Your task to perform on an android device: find snoozed emails in the gmail app Image 0: 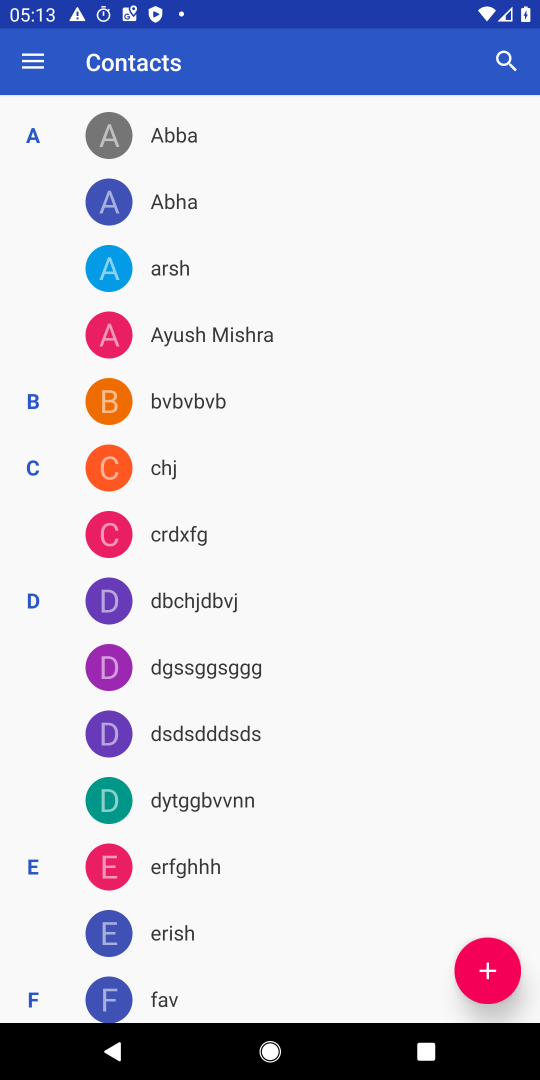
Step 0: press home button
Your task to perform on an android device: find snoozed emails in the gmail app Image 1: 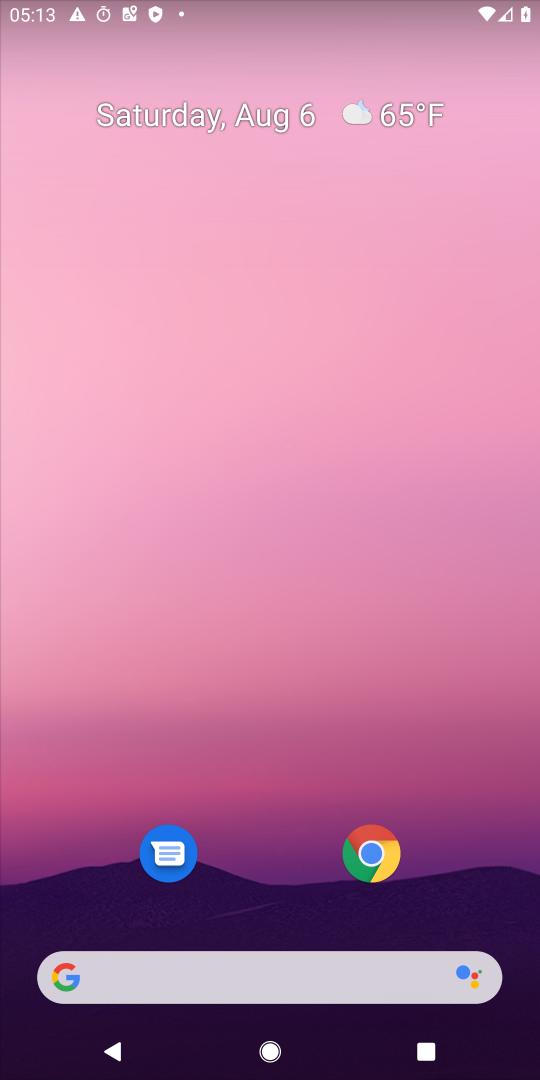
Step 1: drag from (448, 786) to (451, 394)
Your task to perform on an android device: find snoozed emails in the gmail app Image 2: 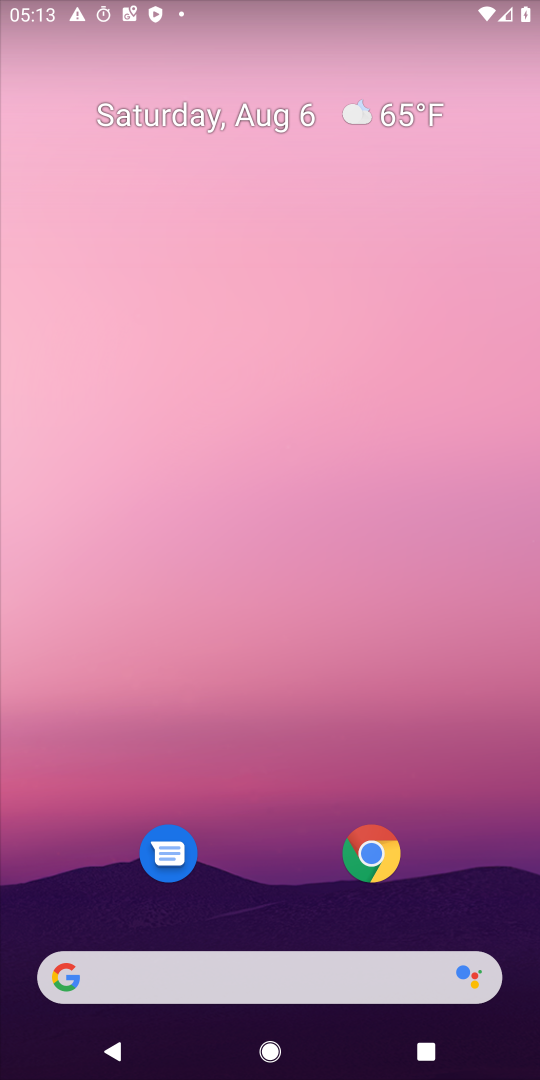
Step 2: drag from (163, 811) to (242, 688)
Your task to perform on an android device: find snoozed emails in the gmail app Image 3: 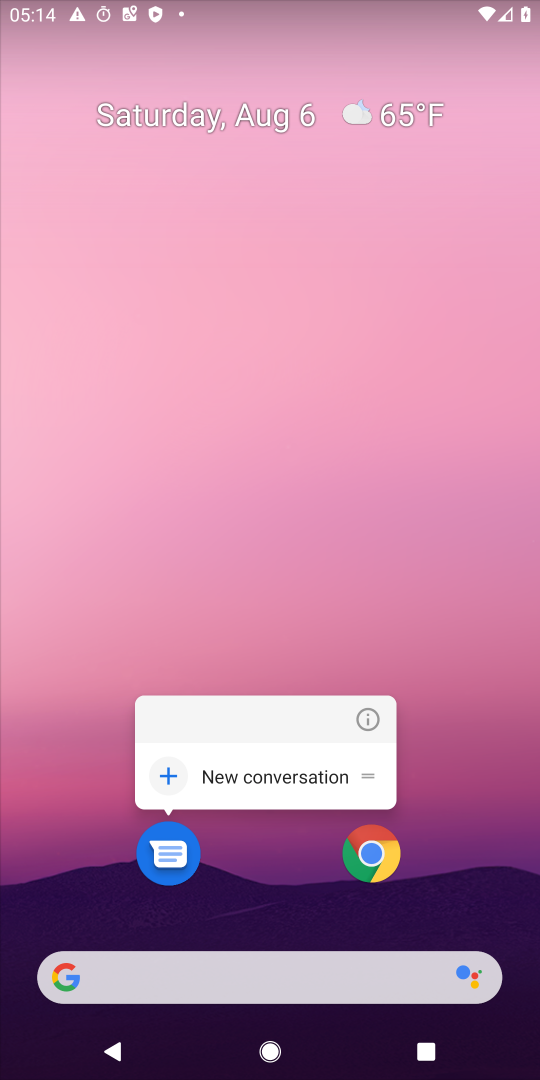
Step 3: drag from (288, 822) to (256, 64)
Your task to perform on an android device: find snoozed emails in the gmail app Image 4: 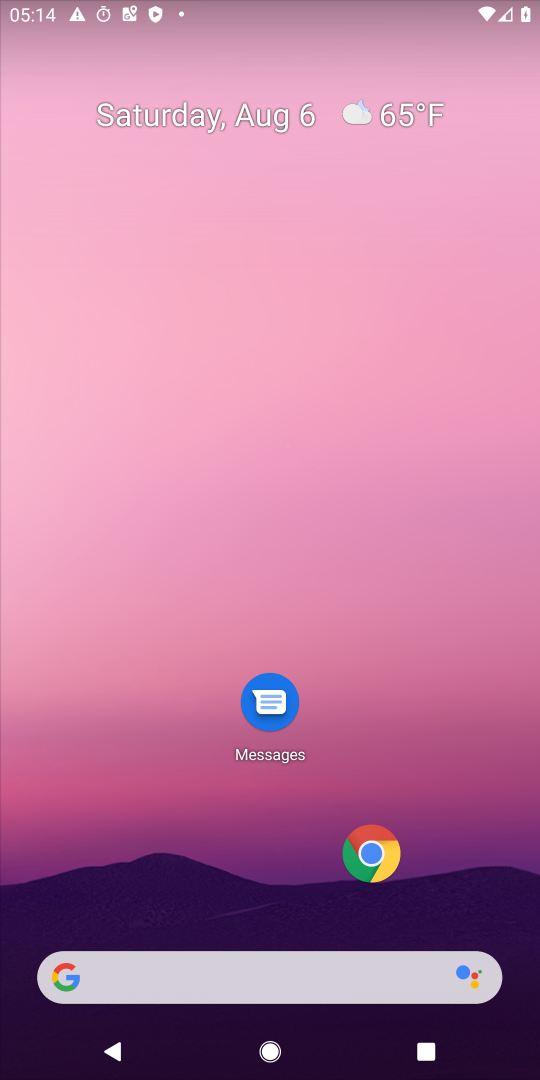
Step 4: drag from (152, 833) to (147, 63)
Your task to perform on an android device: find snoozed emails in the gmail app Image 5: 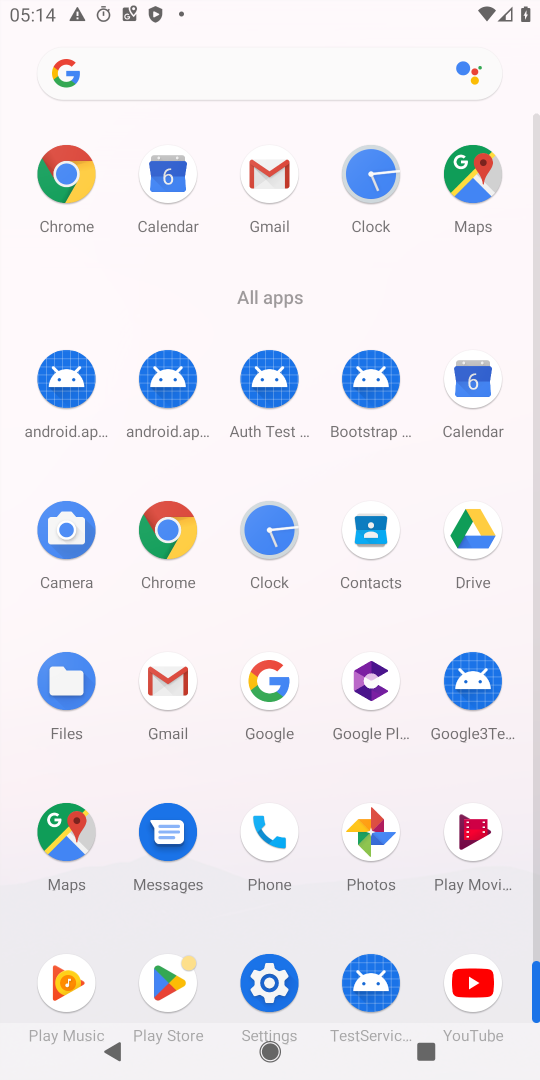
Step 5: click (172, 696)
Your task to perform on an android device: find snoozed emails in the gmail app Image 6: 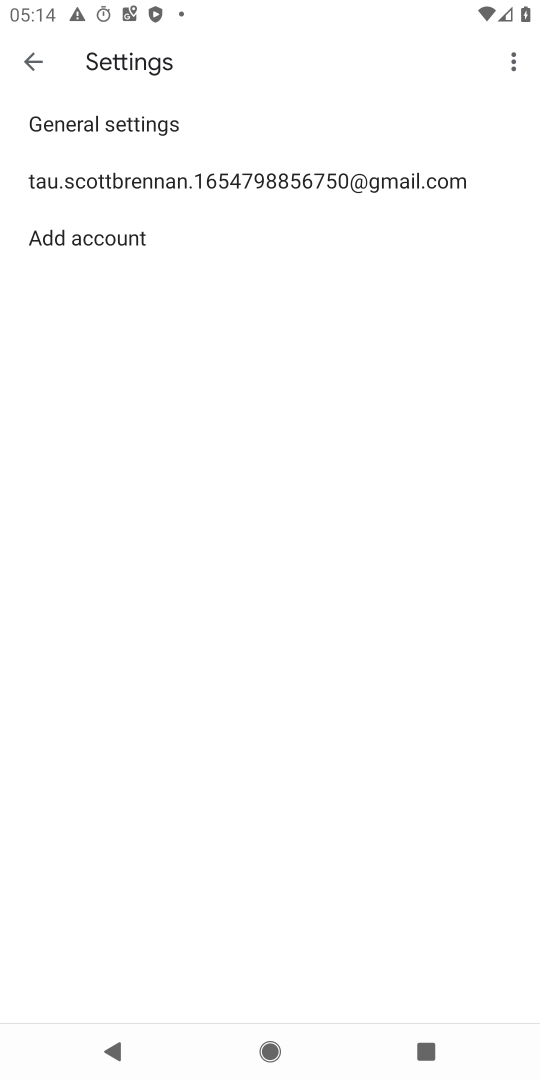
Step 6: click (39, 70)
Your task to perform on an android device: find snoozed emails in the gmail app Image 7: 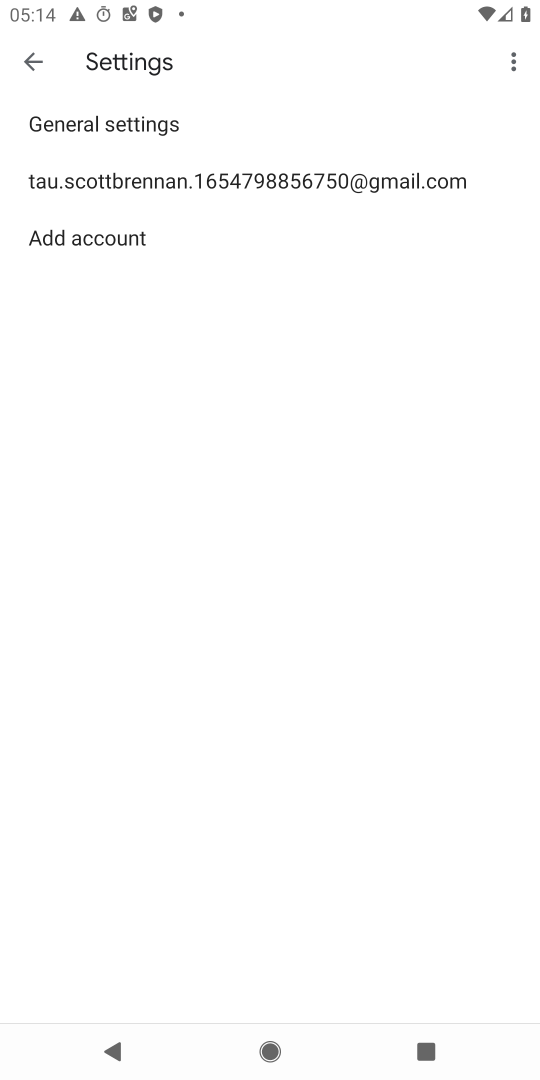
Step 7: click (31, 53)
Your task to perform on an android device: find snoozed emails in the gmail app Image 8: 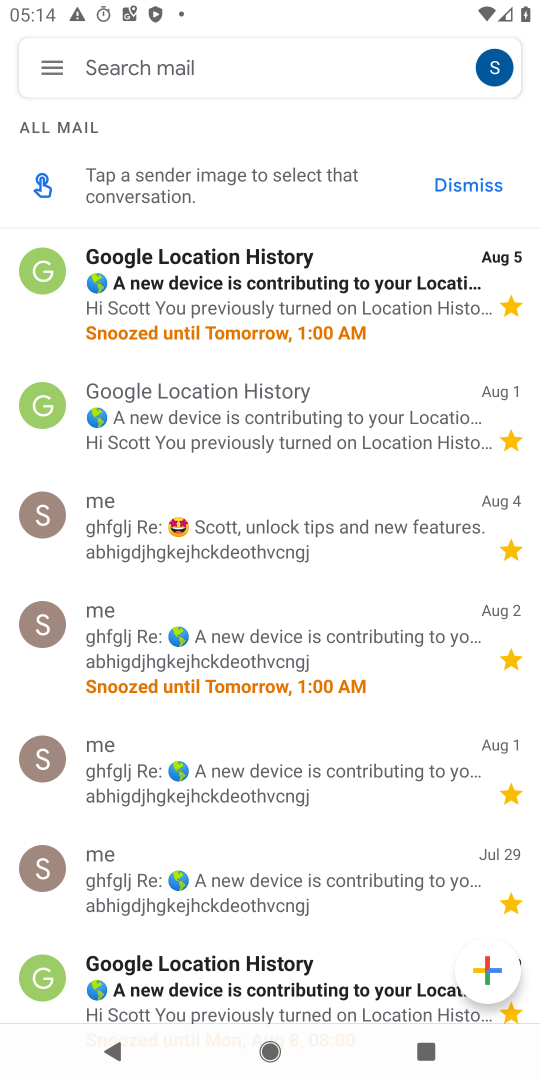
Step 8: click (46, 67)
Your task to perform on an android device: find snoozed emails in the gmail app Image 9: 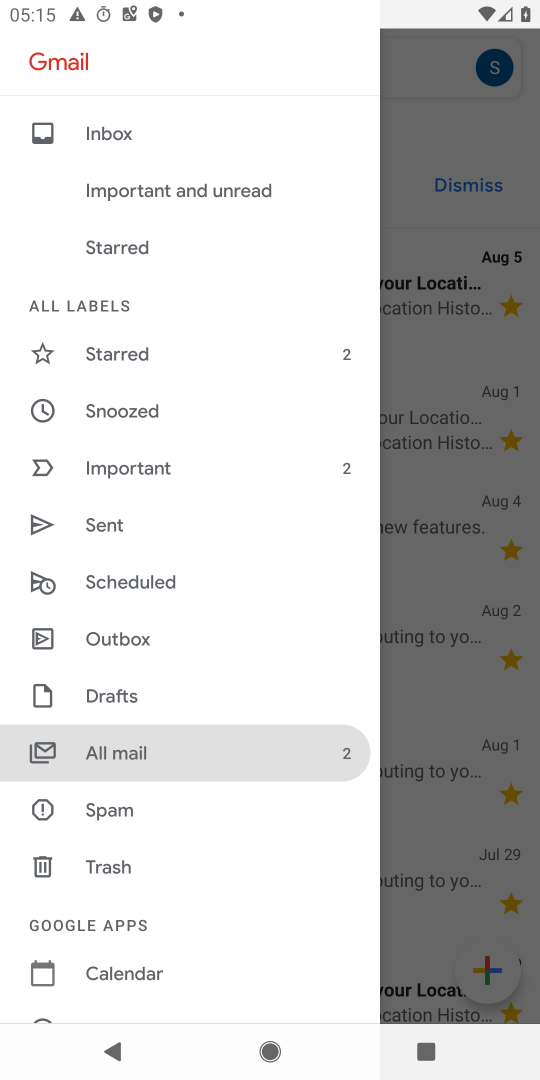
Step 9: click (143, 405)
Your task to perform on an android device: find snoozed emails in the gmail app Image 10: 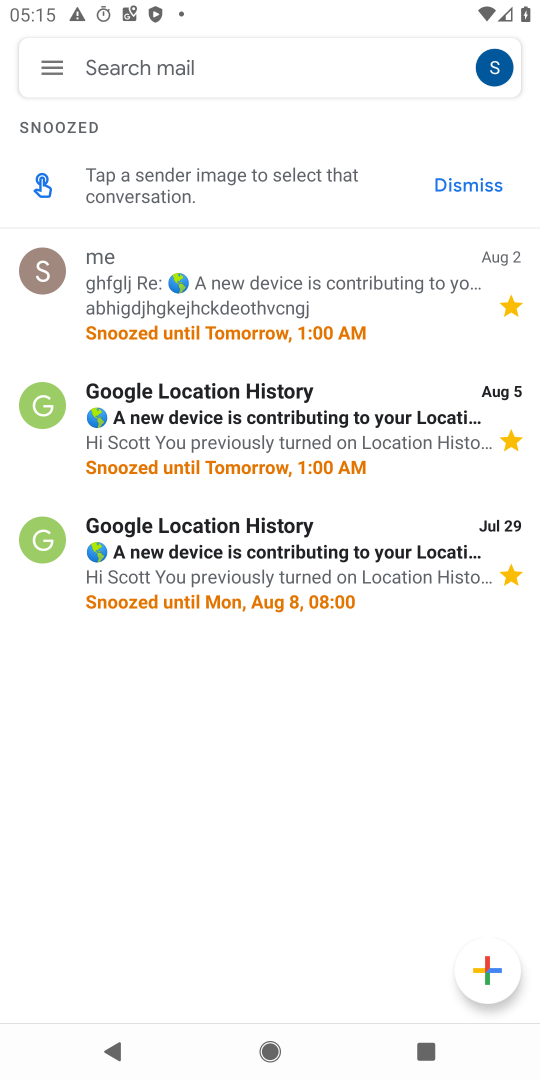
Step 10: task complete